Your task to perform on an android device: Show me recent news Image 0: 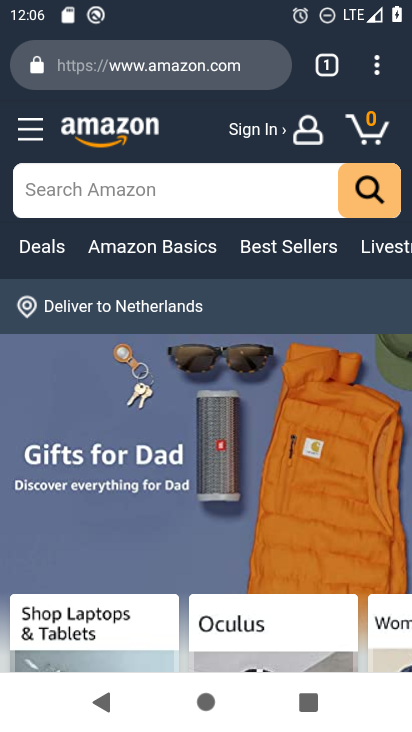
Step 0: press home button
Your task to perform on an android device: Show me recent news Image 1: 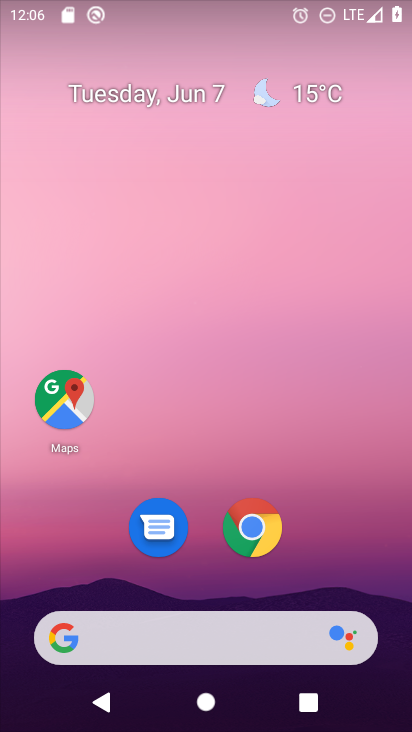
Step 1: task complete